Your task to perform on an android device: open app "DuckDuckGo Privacy Browser" (install if not already installed) and go to login screen Image 0: 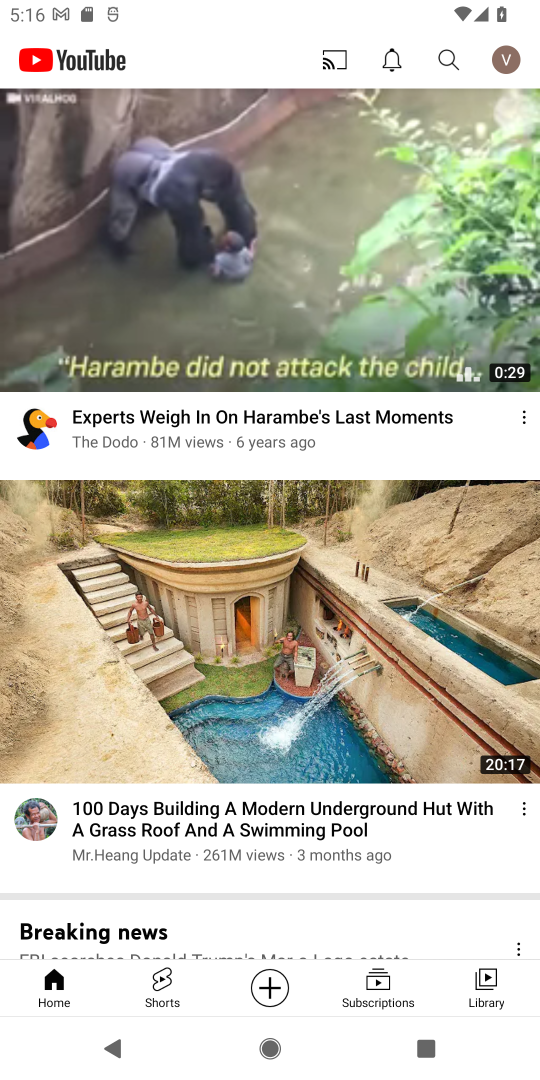
Step 0: press home button
Your task to perform on an android device: open app "DuckDuckGo Privacy Browser" (install if not already installed) and go to login screen Image 1: 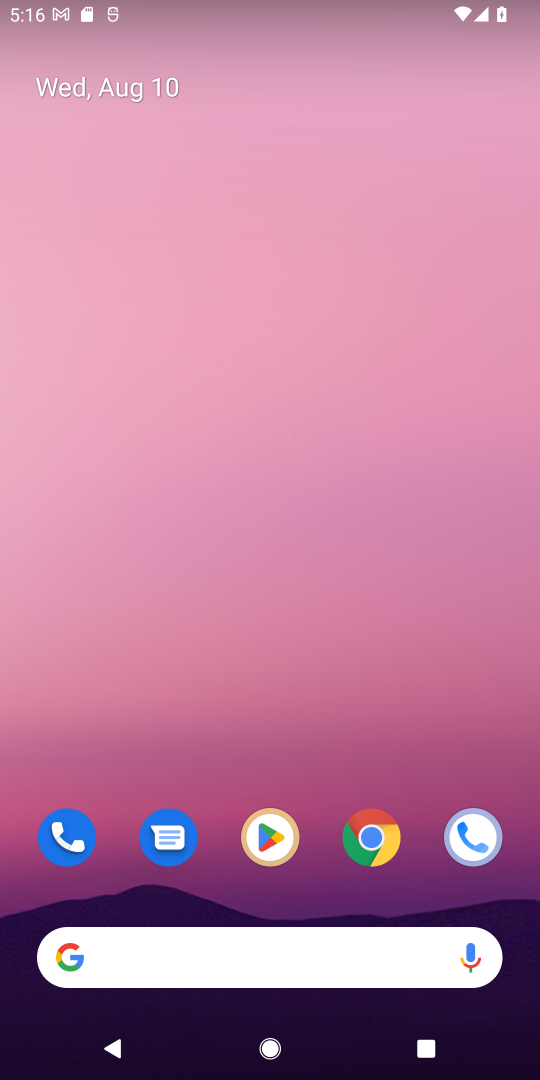
Step 1: click (269, 830)
Your task to perform on an android device: open app "DuckDuckGo Privacy Browser" (install if not already installed) and go to login screen Image 2: 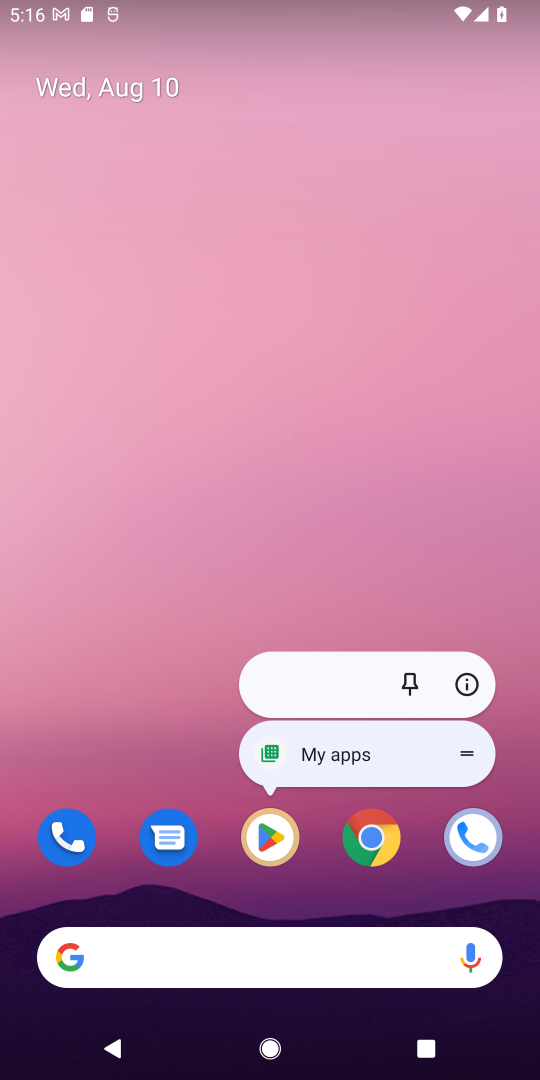
Step 2: click (269, 829)
Your task to perform on an android device: open app "DuckDuckGo Privacy Browser" (install if not already installed) and go to login screen Image 3: 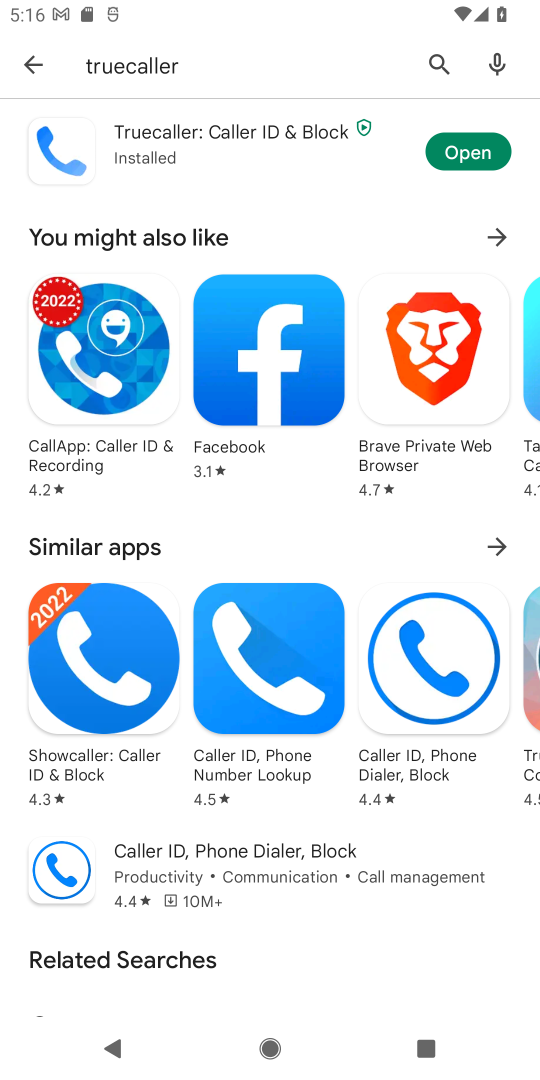
Step 3: click (438, 53)
Your task to perform on an android device: open app "DuckDuckGo Privacy Browser" (install if not already installed) and go to login screen Image 4: 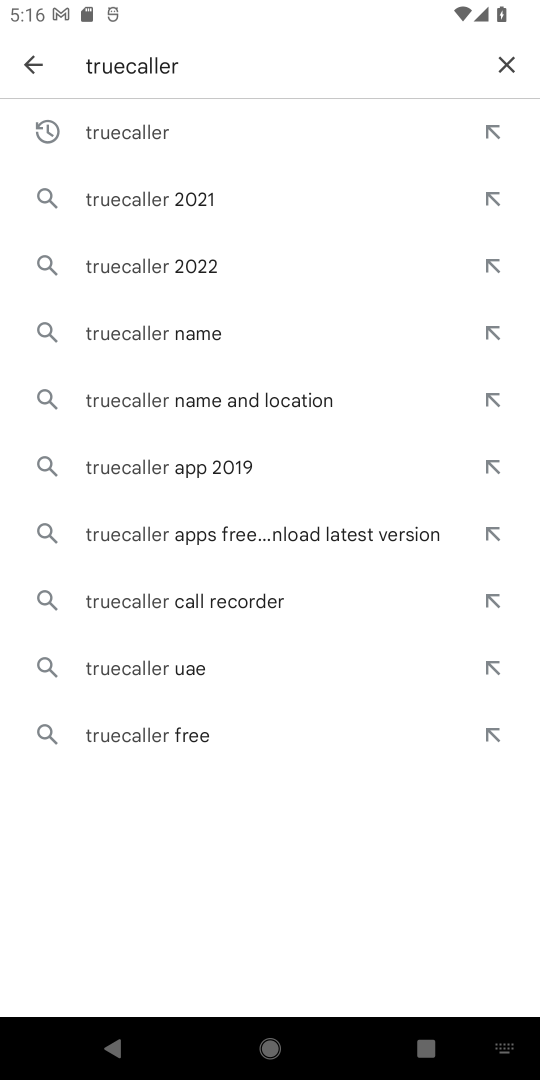
Step 4: click (498, 51)
Your task to perform on an android device: open app "DuckDuckGo Privacy Browser" (install if not already installed) and go to login screen Image 5: 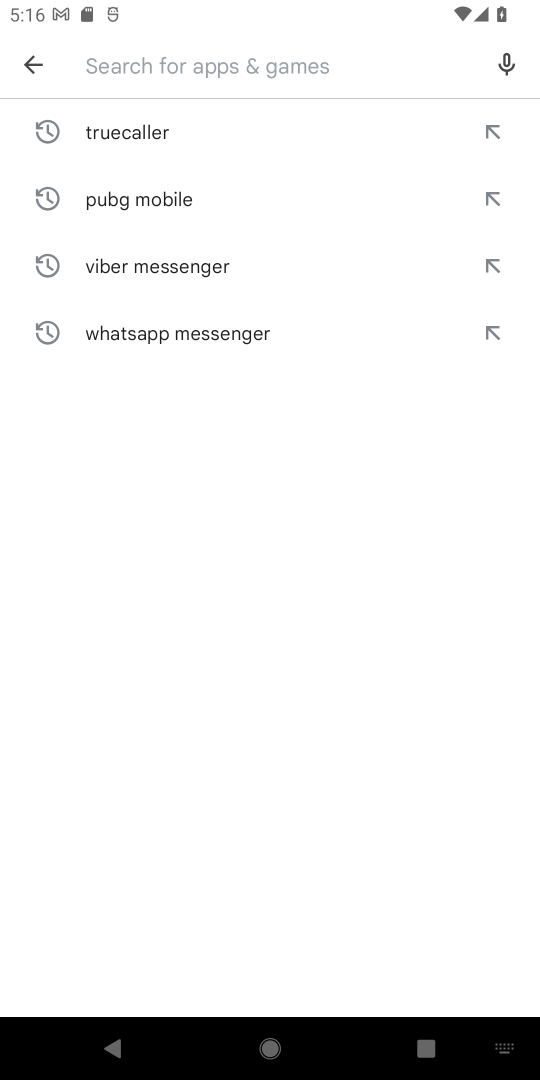
Step 5: type "DuckDuckGo Privacy Browser"
Your task to perform on an android device: open app "DuckDuckGo Privacy Browser" (install if not already installed) and go to login screen Image 6: 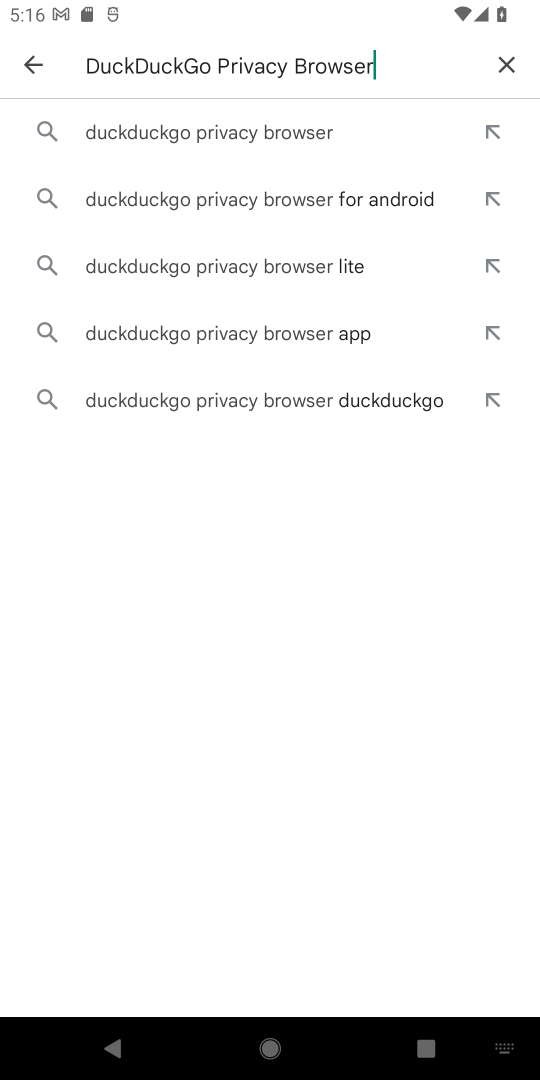
Step 6: click (180, 120)
Your task to perform on an android device: open app "DuckDuckGo Privacy Browser" (install if not already installed) and go to login screen Image 7: 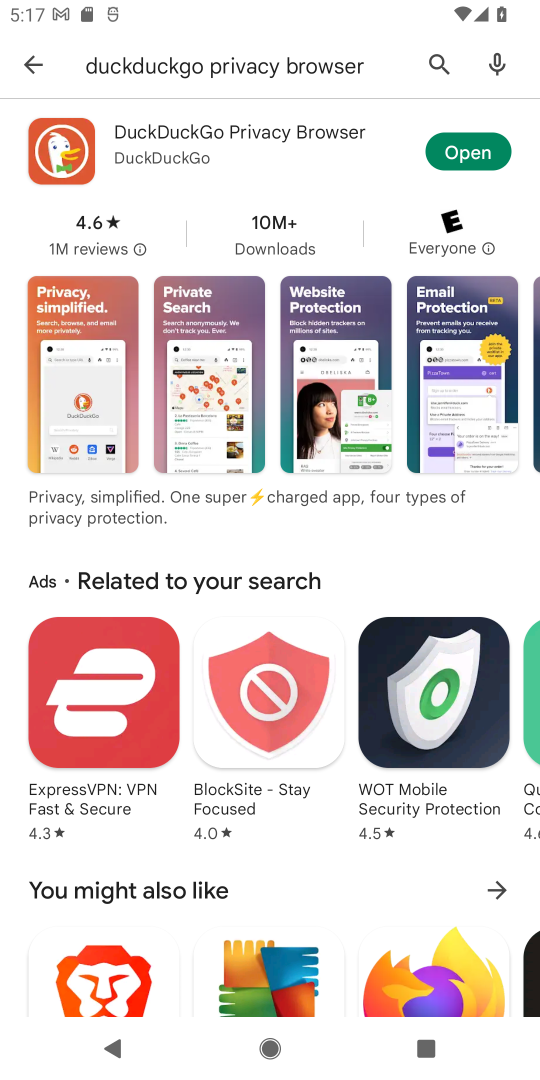
Step 7: click (451, 155)
Your task to perform on an android device: open app "DuckDuckGo Privacy Browser" (install if not already installed) and go to login screen Image 8: 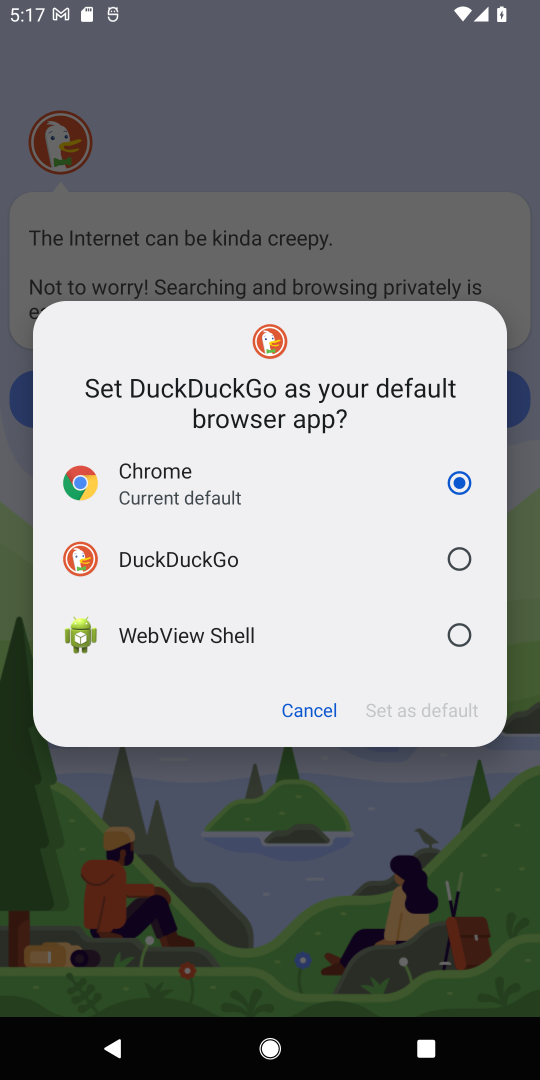
Step 8: task complete